Your task to perform on an android device: Open calendar and show me the first week of next month Image 0: 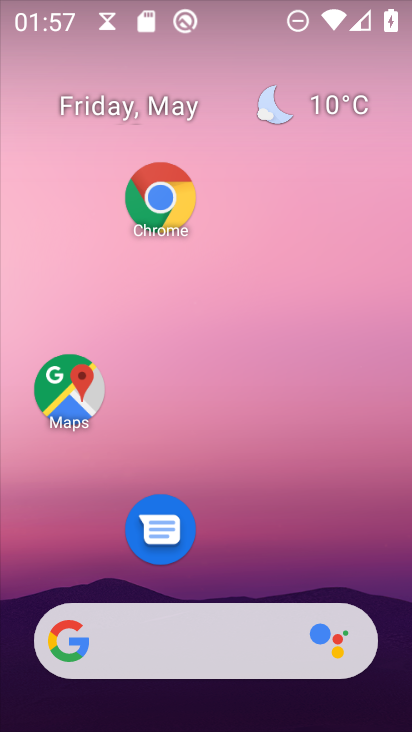
Step 0: drag from (282, 468) to (236, 193)
Your task to perform on an android device: Open calendar and show me the first week of next month Image 1: 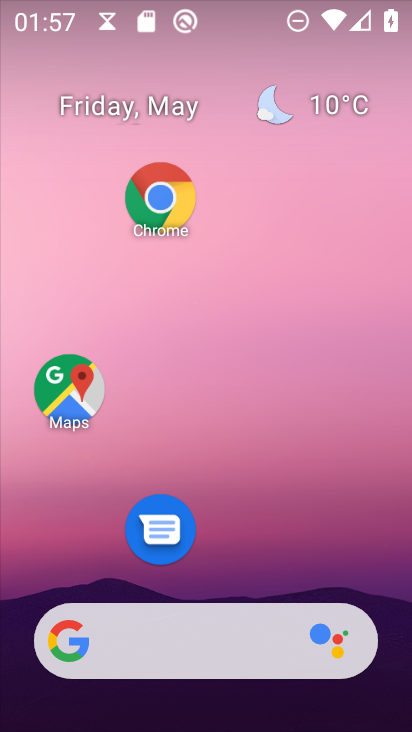
Step 1: drag from (269, 666) to (229, 298)
Your task to perform on an android device: Open calendar and show me the first week of next month Image 2: 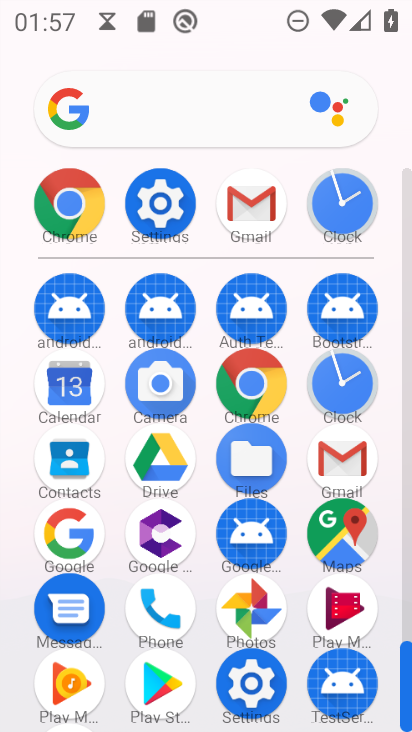
Step 2: click (67, 378)
Your task to perform on an android device: Open calendar and show me the first week of next month Image 3: 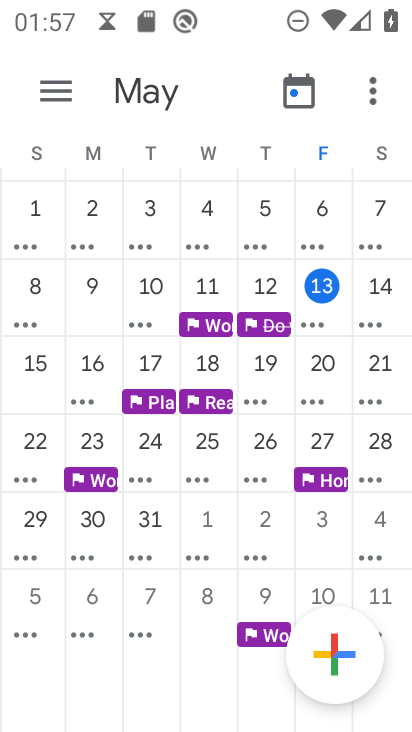
Step 3: task complete